Your task to perform on an android device: Open calendar and show me the third week of next month Image 0: 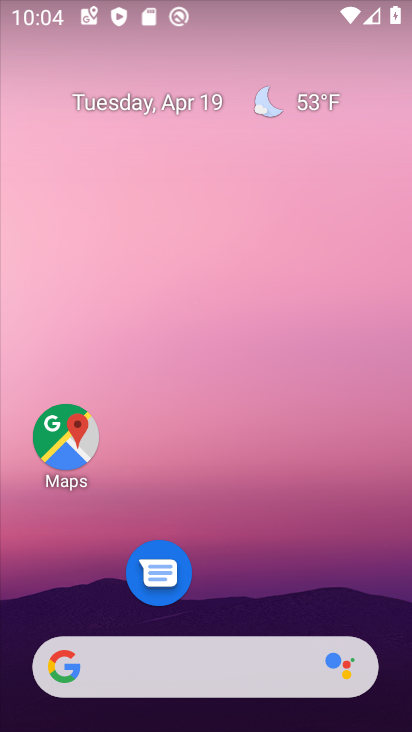
Step 0: drag from (211, 534) to (193, 64)
Your task to perform on an android device: Open calendar and show me the third week of next month Image 1: 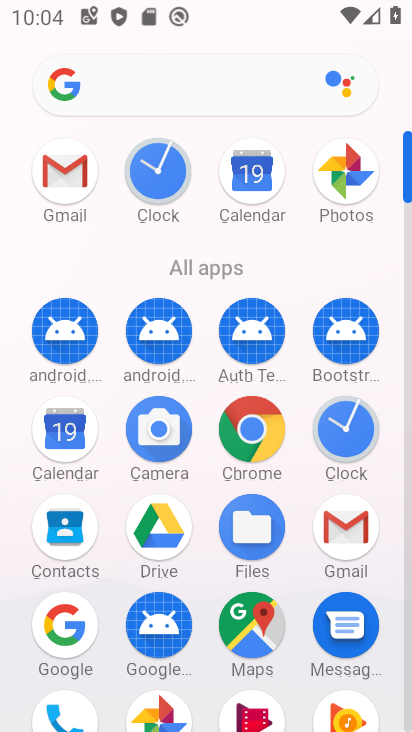
Step 1: click (79, 446)
Your task to perform on an android device: Open calendar and show me the third week of next month Image 2: 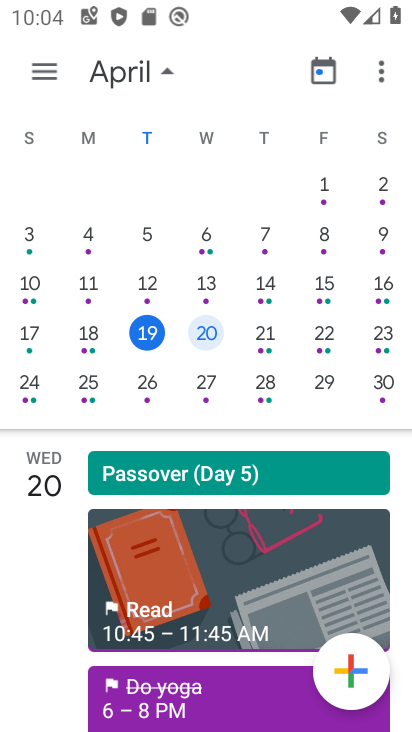
Step 2: drag from (348, 287) to (17, 225)
Your task to perform on an android device: Open calendar and show me the third week of next month Image 3: 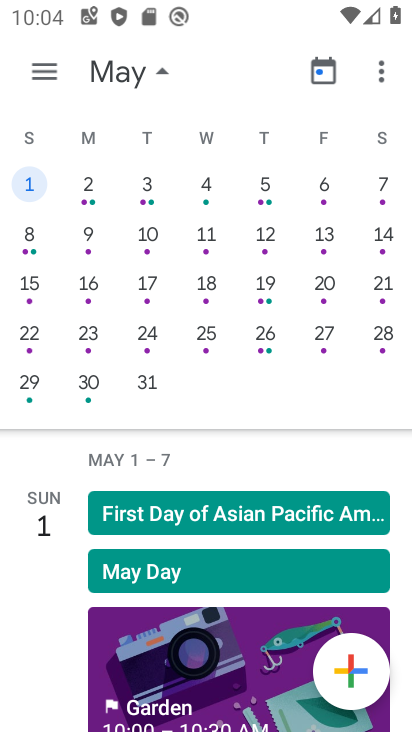
Step 3: click (79, 294)
Your task to perform on an android device: Open calendar and show me the third week of next month Image 4: 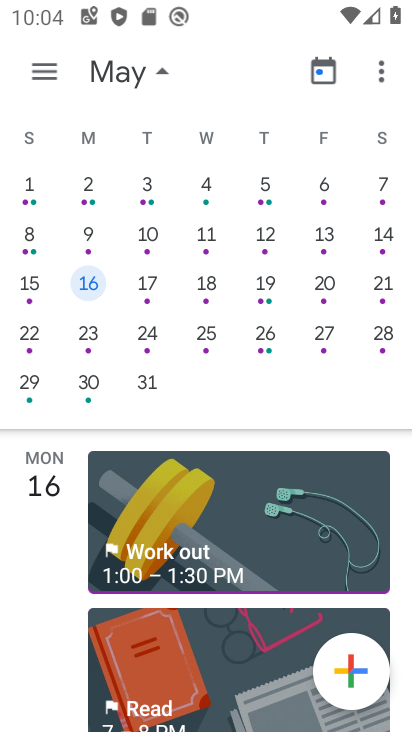
Step 4: task complete